Your task to perform on an android device: Open the stopwatch Image 0: 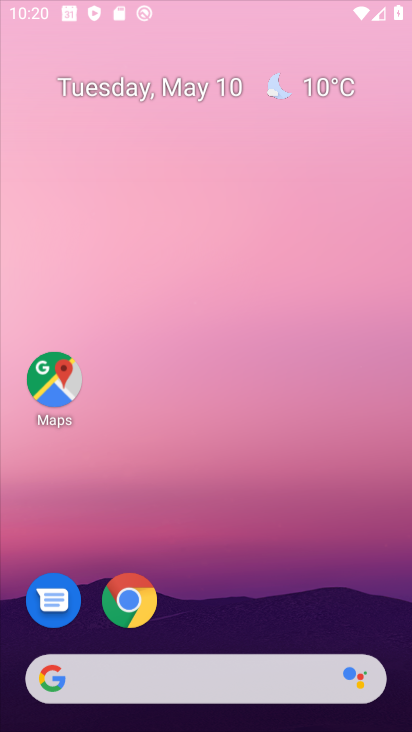
Step 0: click (277, 171)
Your task to perform on an android device: Open the stopwatch Image 1: 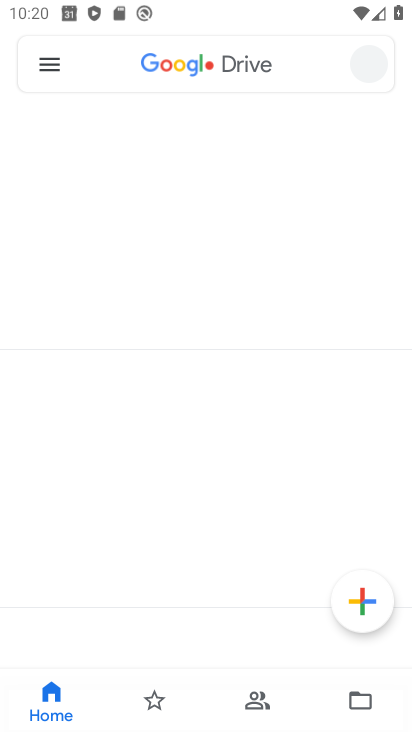
Step 1: drag from (290, 604) to (265, 244)
Your task to perform on an android device: Open the stopwatch Image 2: 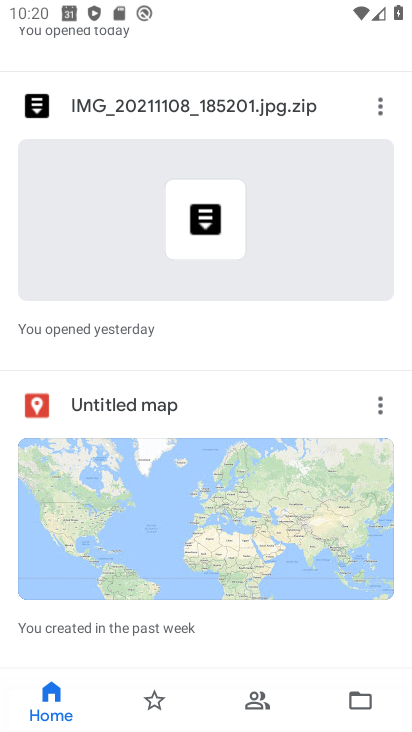
Step 2: press home button
Your task to perform on an android device: Open the stopwatch Image 3: 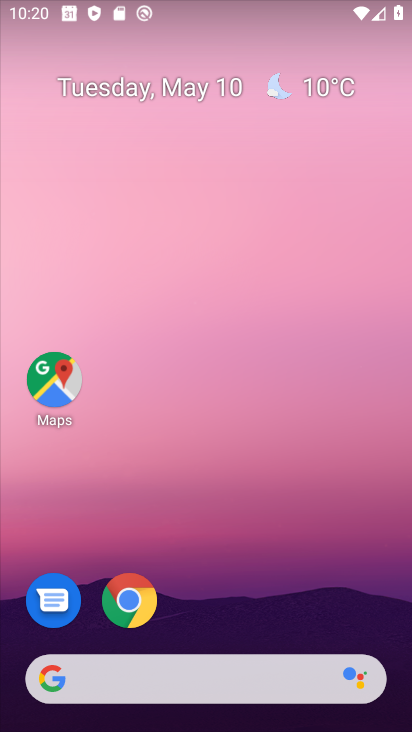
Step 3: drag from (300, 587) to (355, 174)
Your task to perform on an android device: Open the stopwatch Image 4: 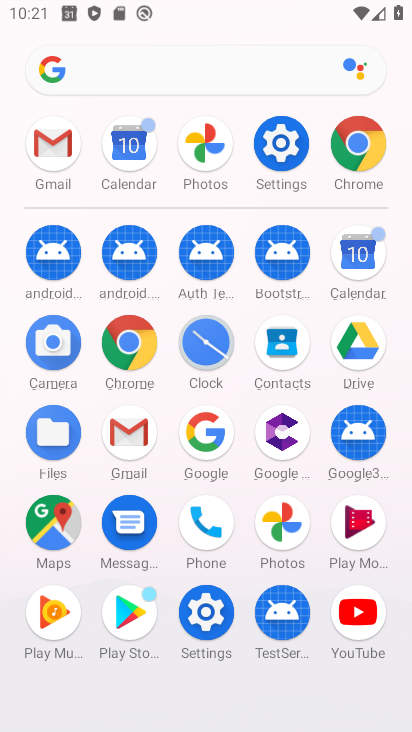
Step 4: click (207, 360)
Your task to perform on an android device: Open the stopwatch Image 5: 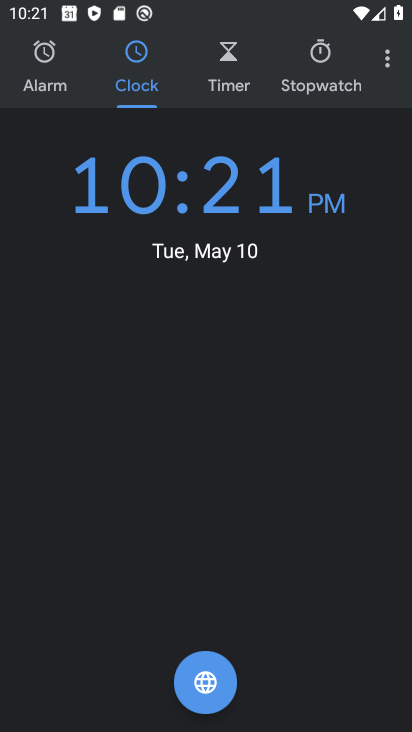
Step 5: click (318, 78)
Your task to perform on an android device: Open the stopwatch Image 6: 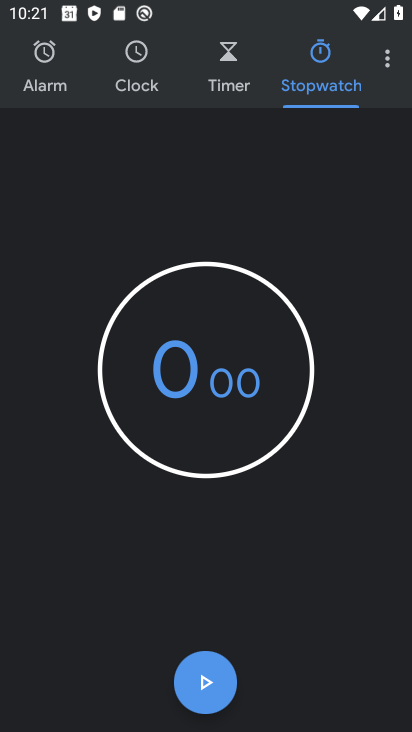
Step 6: click (204, 698)
Your task to perform on an android device: Open the stopwatch Image 7: 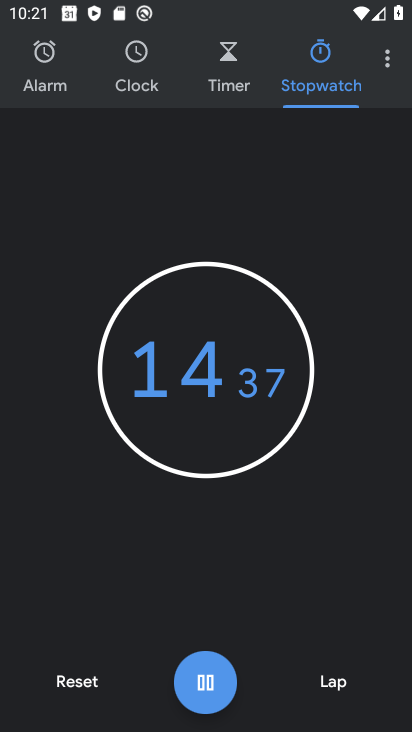
Step 7: task complete